Your task to perform on an android device: turn off airplane mode Image 0: 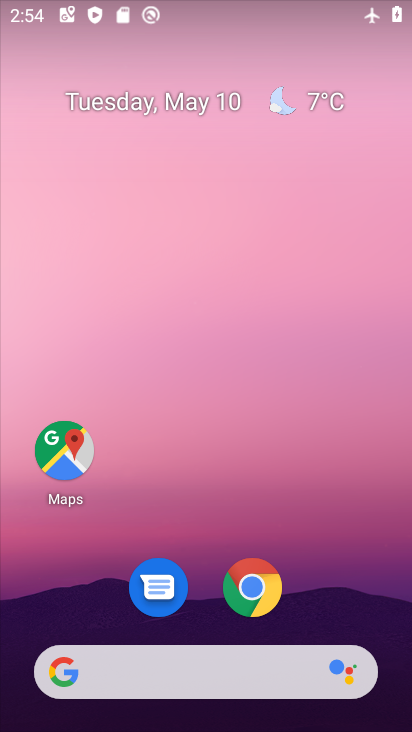
Step 0: drag from (306, 13) to (340, 560)
Your task to perform on an android device: turn off airplane mode Image 1: 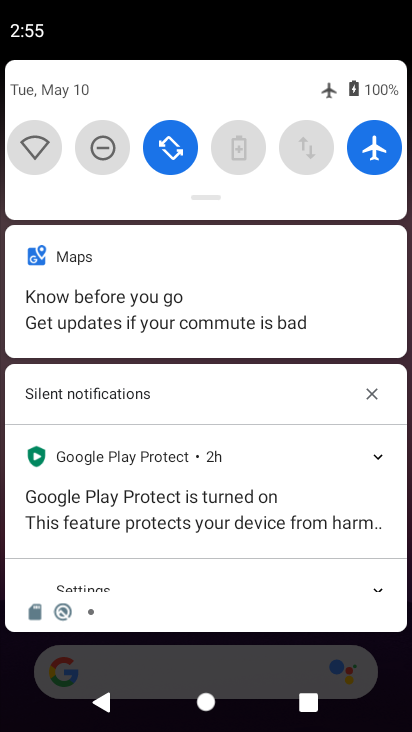
Step 1: click (375, 156)
Your task to perform on an android device: turn off airplane mode Image 2: 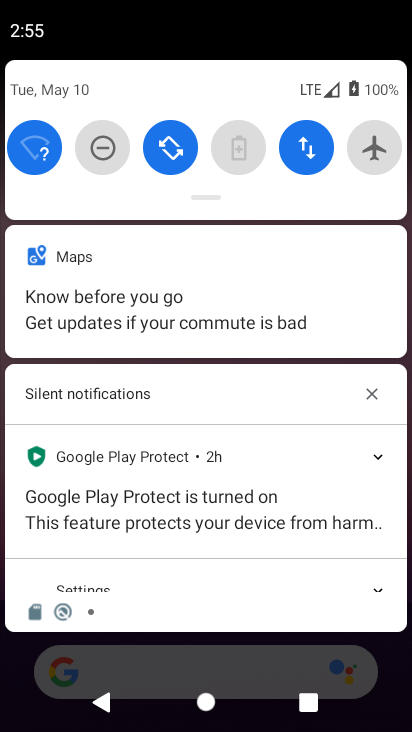
Step 2: task complete